Your task to perform on an android device: Open calendar and show me the third week of next month Image 0: 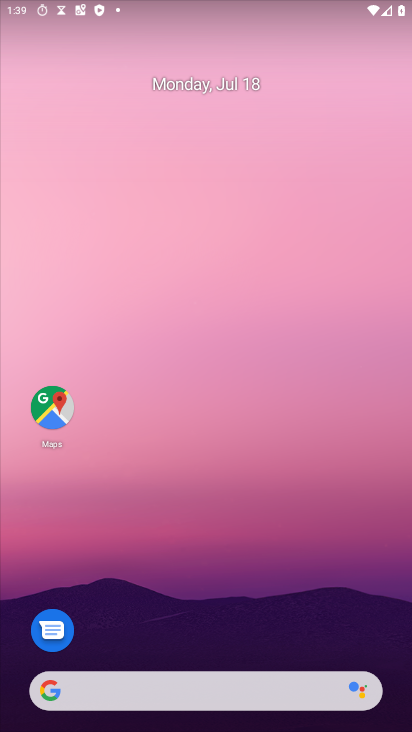
Step 0: drag from (226, 597) to (260, 0)
Your task to perform on an android device: Open calendar and show me the third week of next month Image 1: 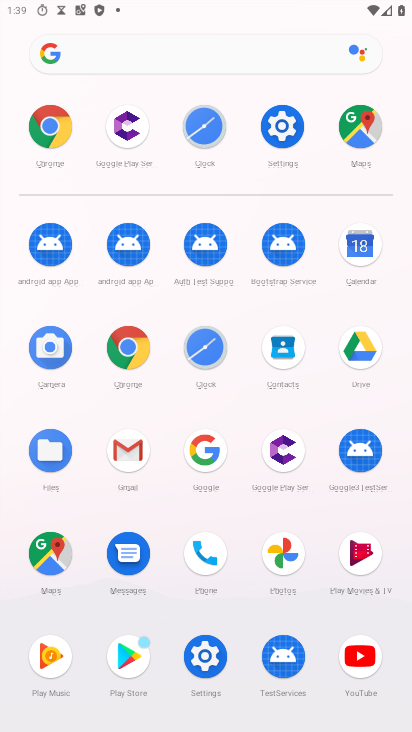
Step 1: click (361, 234)
Your task to perform on an android device: Open calendar and show me the third week of next month Image 2: 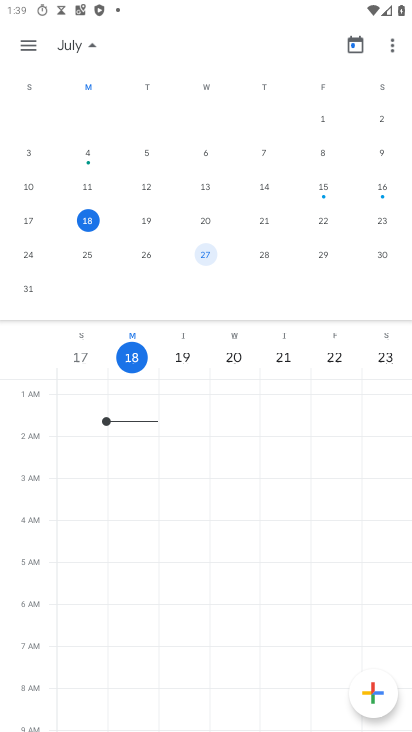
Step 2: click (81, 39)
Your task to perform on an android device: Open calendar and show me the third week of next month Image 3: 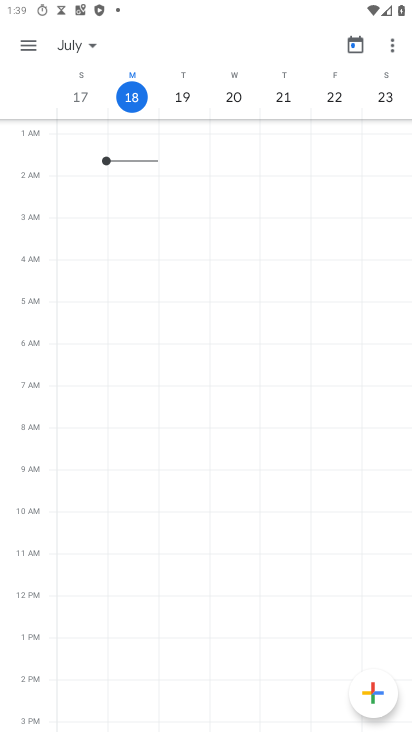
Step 3: click (84, 41)
Your task to perform on an android device: Open calendar and show me the third week of next month Image 4: 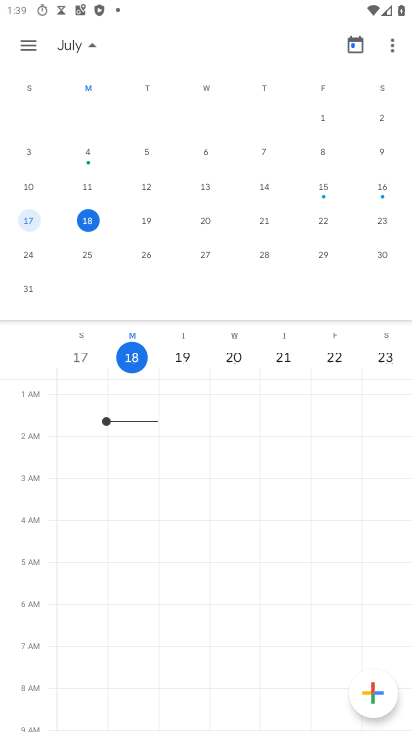
Step 4: drag from (335, 240) to (2, 233)
Your task to perform on an android device: Open calendar and show me the third week of next month Image 5: 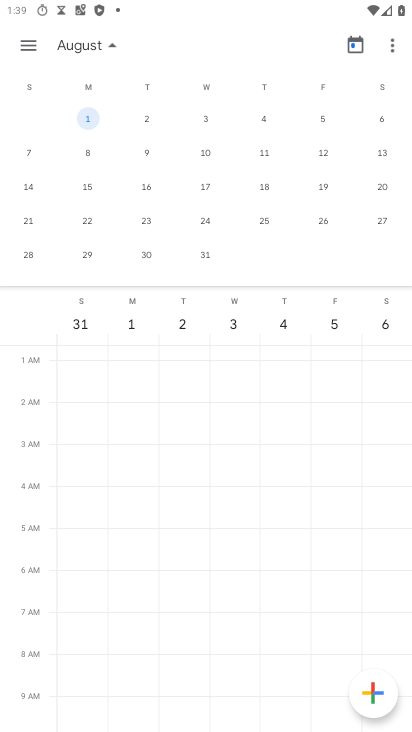
Step 5: click (211, 188)
Your task to perform on an android device: Open calendar and show me the third week of next month Image 6: 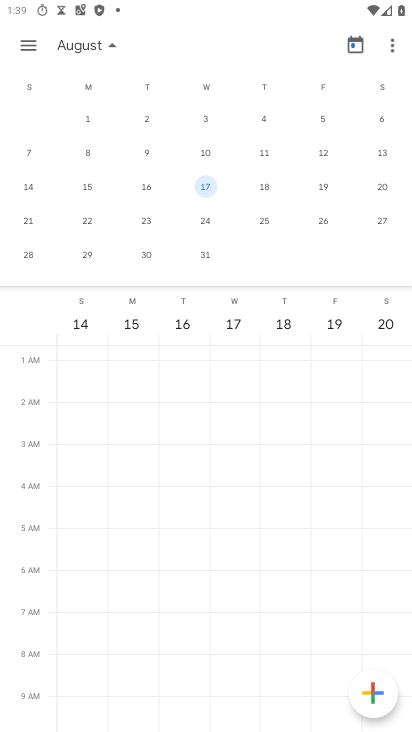
Step 6: task complete